Your task to perform on an android device: clear history in the chrome app Image 0: 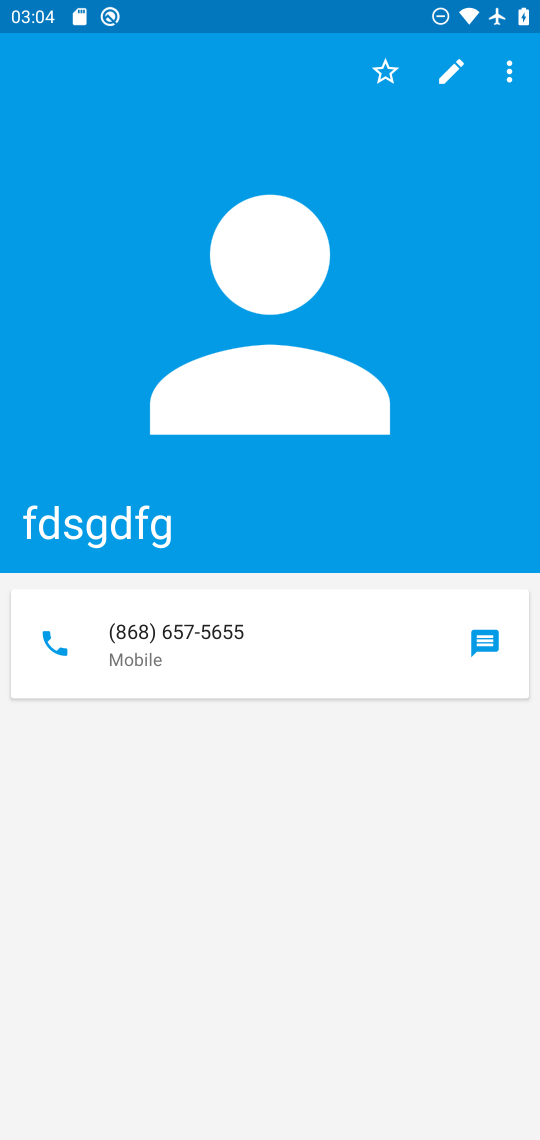
Step 0: press home button
Your task to perform on an android device: clear history in the chrome app Image 1: 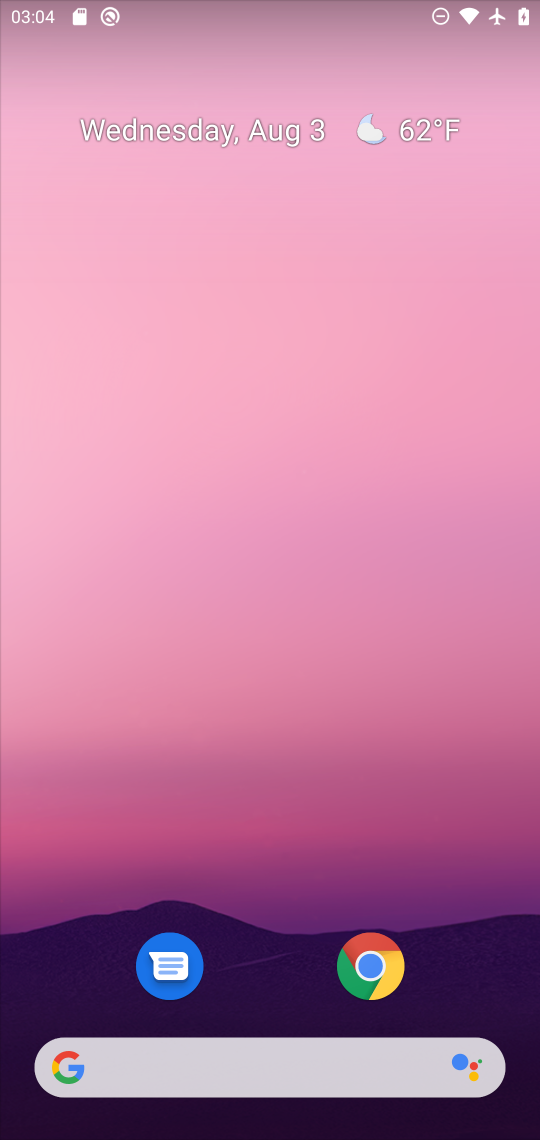
Step 1: click (352, 941)
Your task to perform on an android device: clear history in the chrome app Image 2: 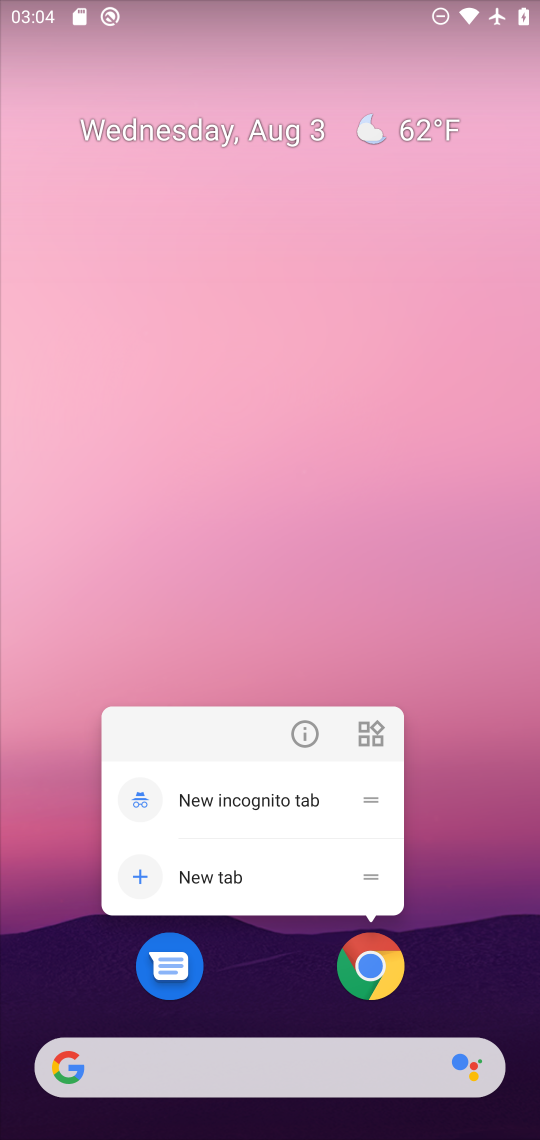
Step 2: click (355, 969)
Your task to perform on an android device: clear history in the chrome app Image 3: 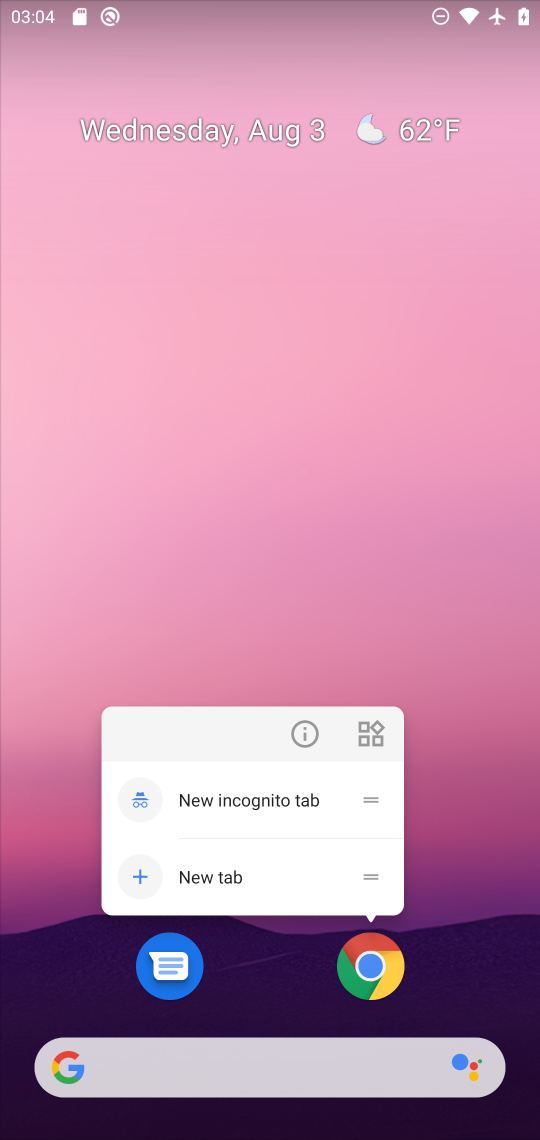
Step 3: click (362, 971)
Your task to perform on an android device: clear history in the chrome app Image 4: 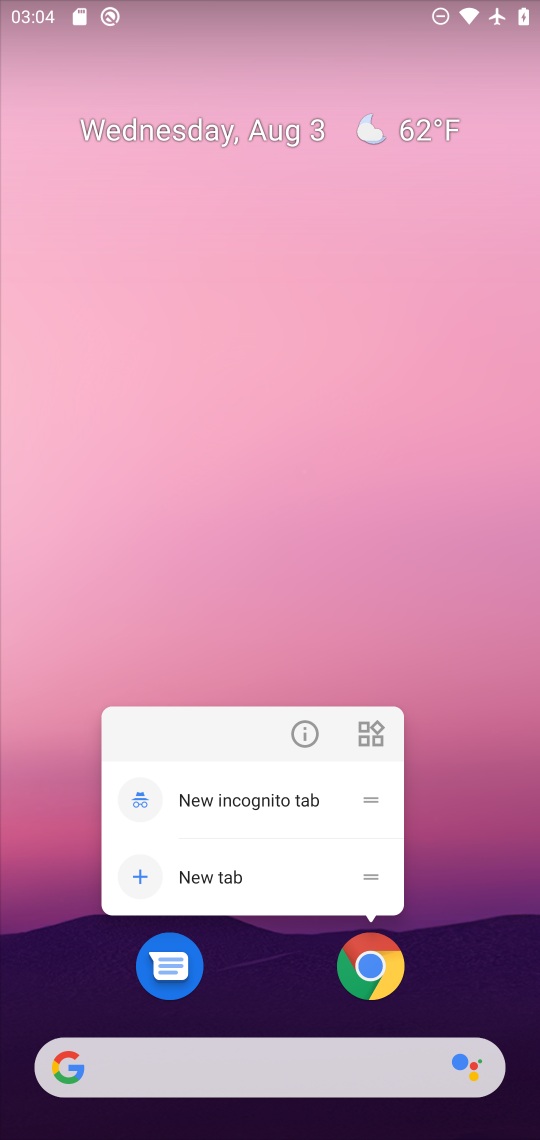
Step 4: click (379, 969)
Your task to perform on an android device: clear history in the chrome app Image 5: 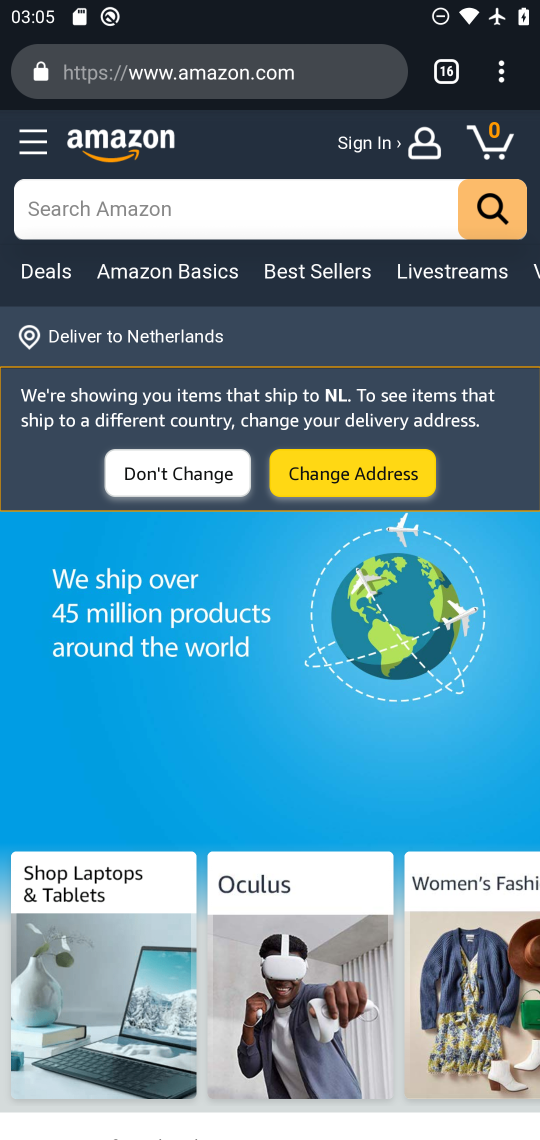
Step 5: click (506, 68)
Your task to perform on an android device: clear history in the chrome app Image 6: 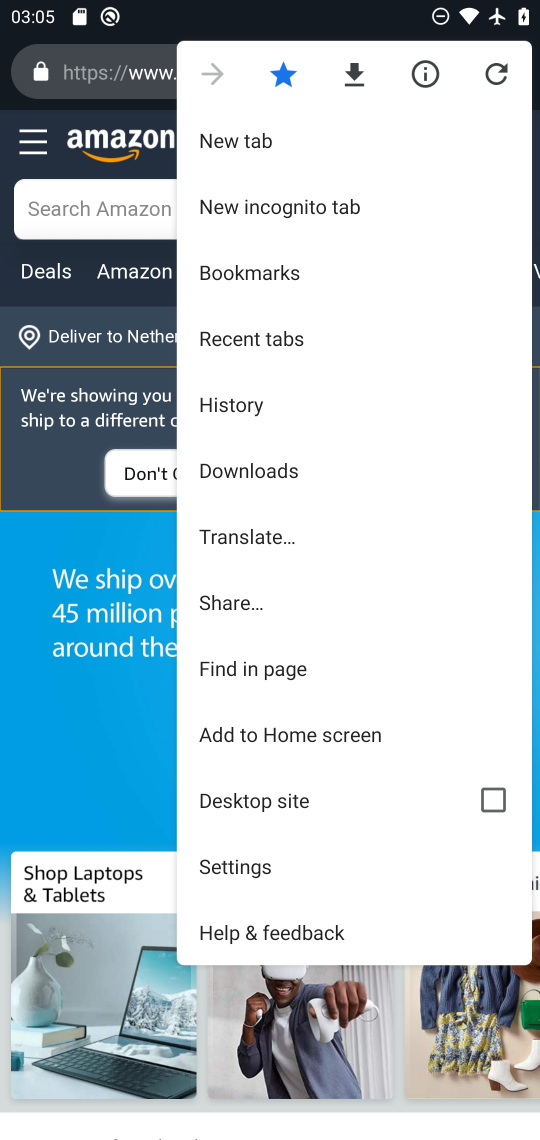
Step 6: click (269, 401)
Your task to perform on an android device: clear history in the chrome app Image 7: 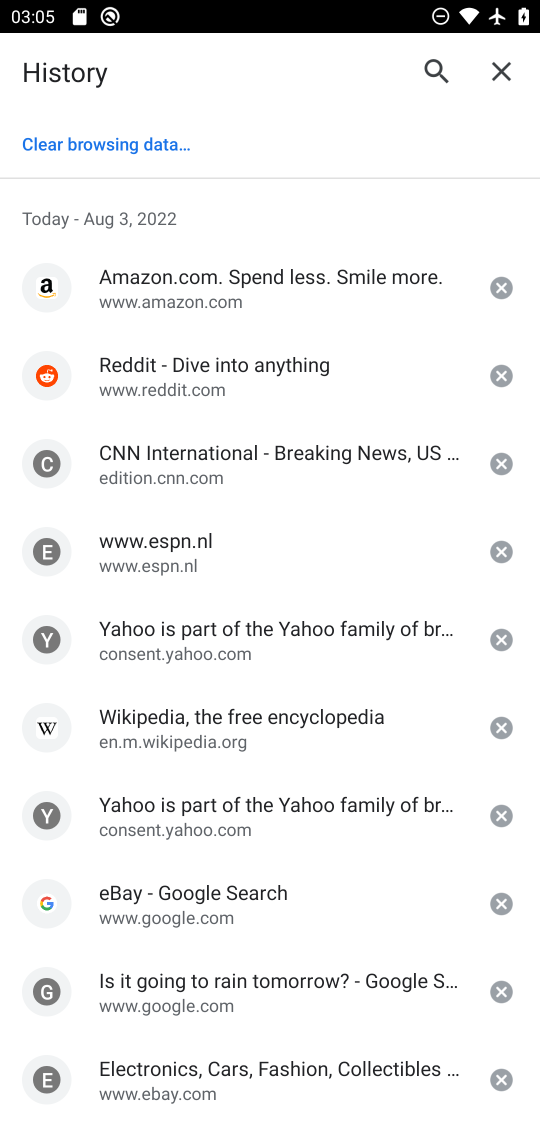
Step 7: click (90, 147)
Your task to perform on an android device: clear history in the chrome app Image 8: 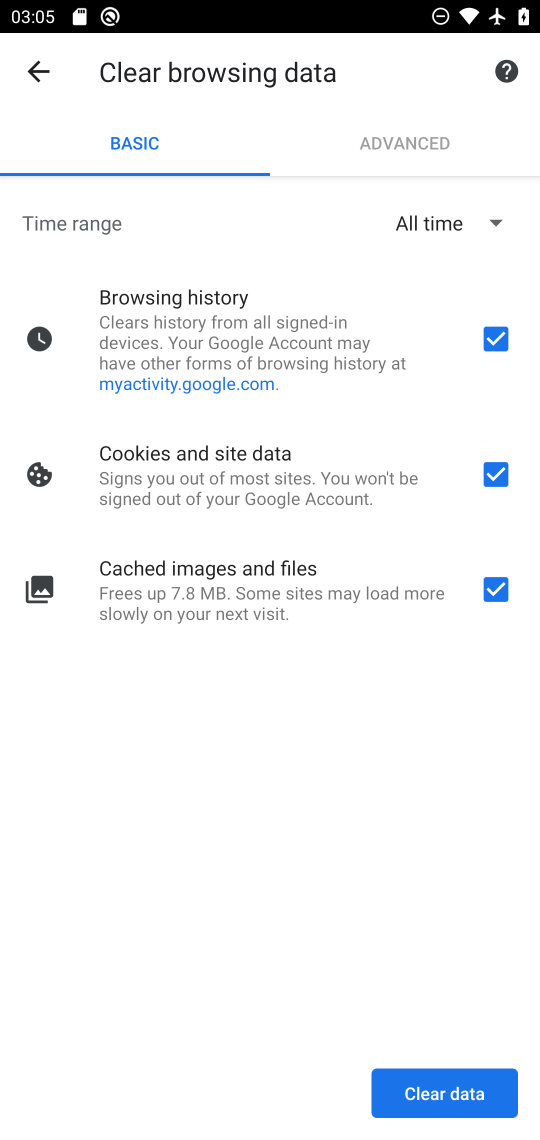
Step 8: click (456, 1108)
Your task to perform on an android device: clear history in the chrome app Image 9: 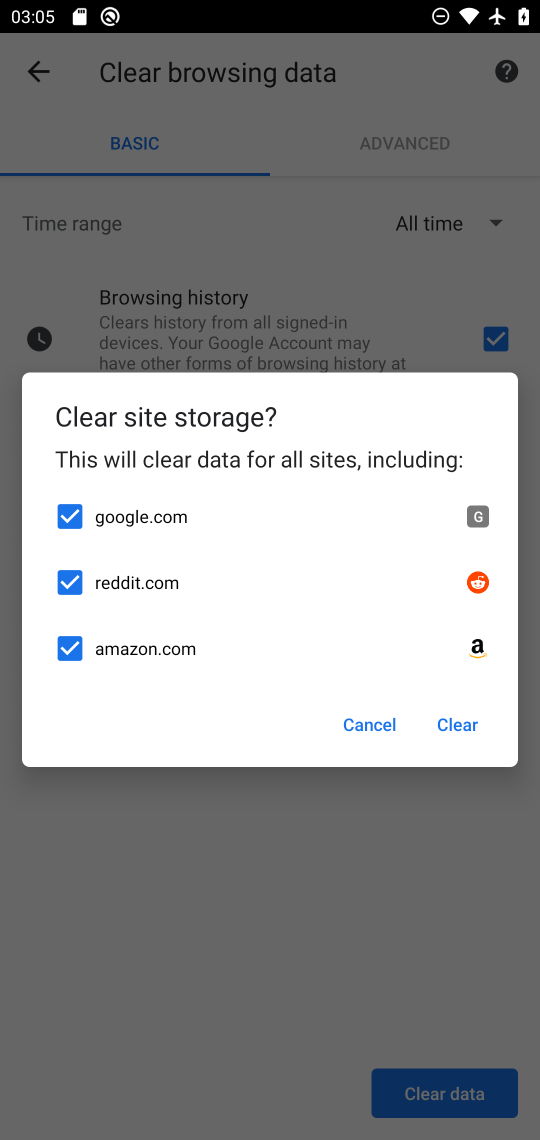
Step 9: click (431, 714)
Your task to perform on an android device: clear history in the chrome app Image 10: 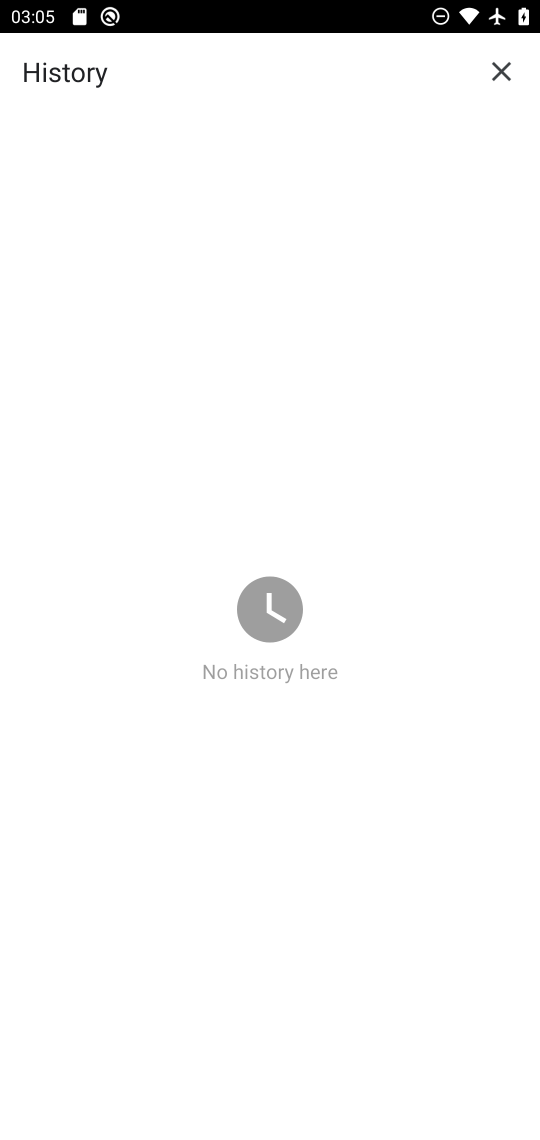
Step 10: task complete